Your task to perform on an android device: show emergency info Image 0: 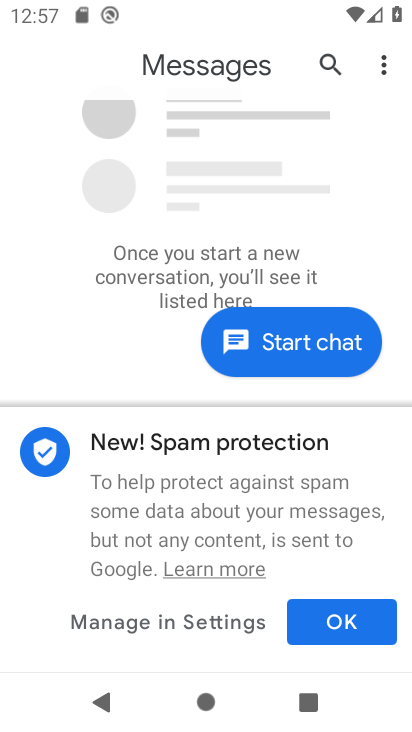
Step 0: press home button
Your task to perform on an android device: show emergency info Image 1: 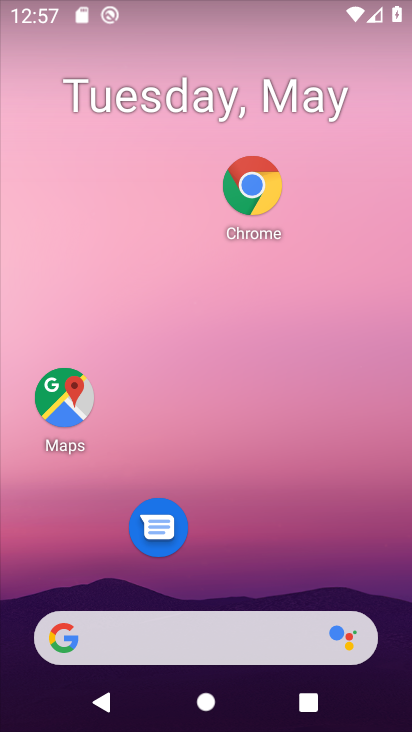
Step 1: drag from (288, 534) to (122, 10)
Your task to perform on an android device: show emergency info Image 2: 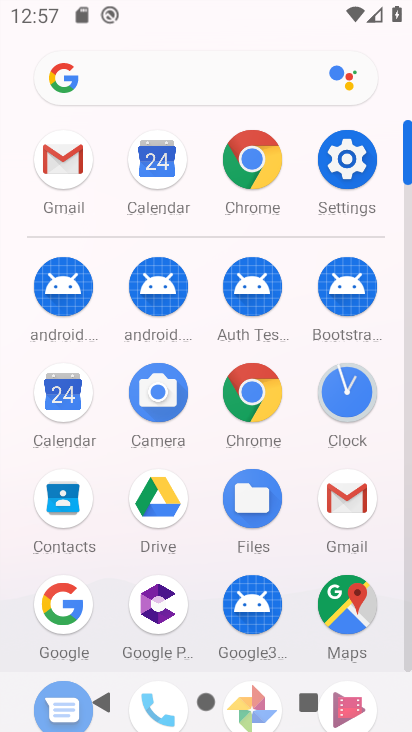
Step 2: click (353, 153)
Your task to perform on an android device: show emergency info Image 3: 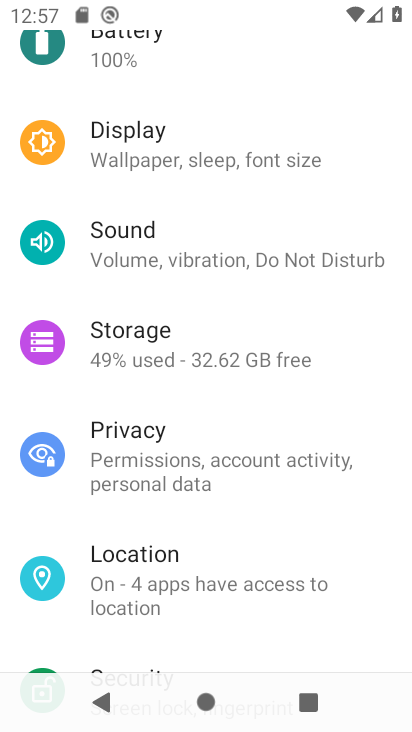
Step 3: drag from (201, 192) to (232, 534)
Your task to perform on an android device: show emergency info Image 4: 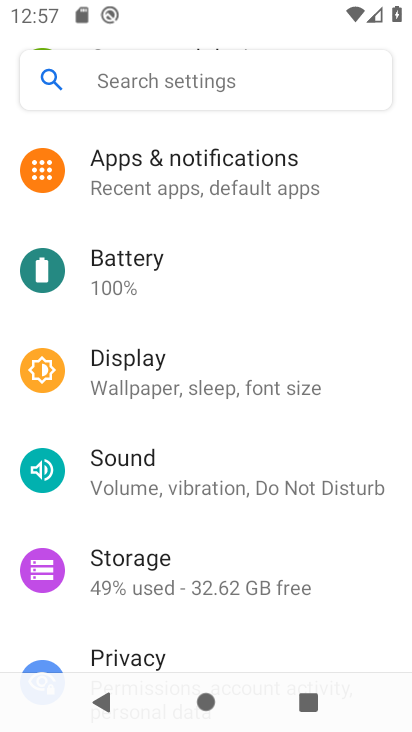
Step 4: drag from (215, 519) to (215, 122)
Your task to perform on an android device: show emergency info Image 5: 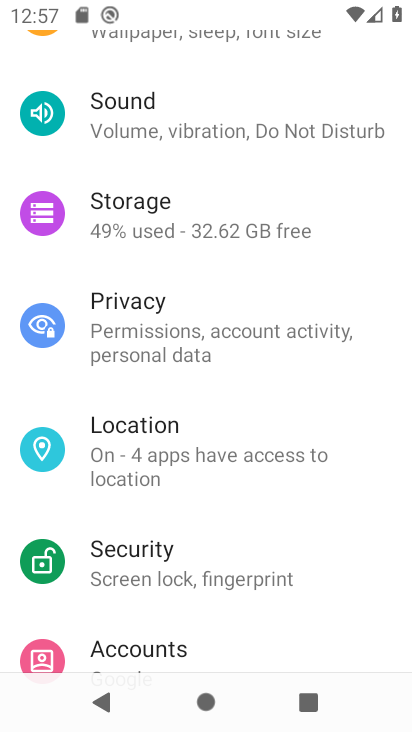
Step 5: drag from (214, 498) to (204, 87)
Your task to perform on an android device: show emergency info Image 6: 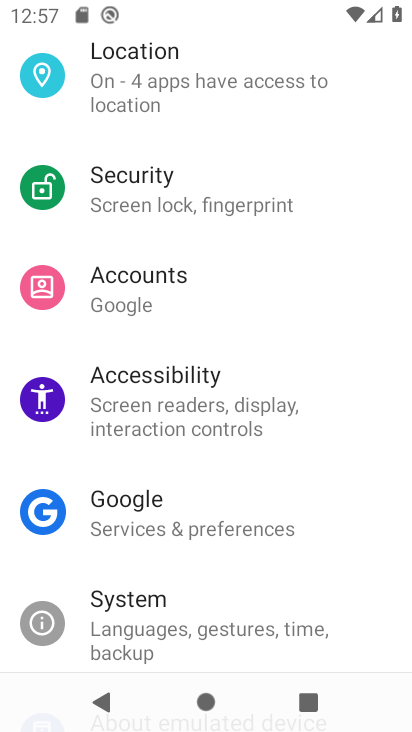
Step 6: drag from (193, 482) to (128, 13)
Your task to perform on an android device: show emergency info Image 7: 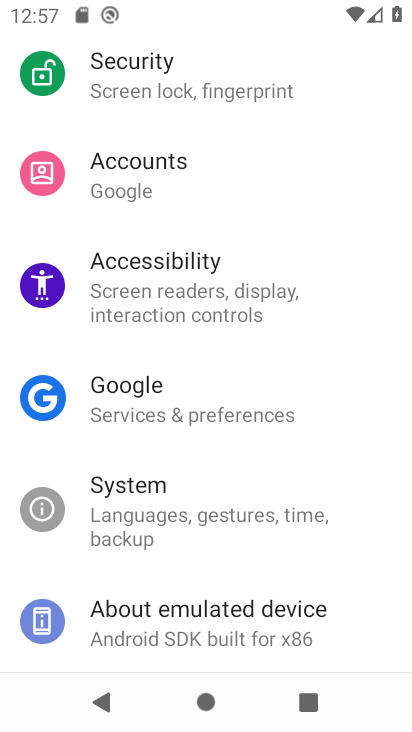
Step 7: click (154, 593)
Your task to perform on an android device: show emergency info Image 8: 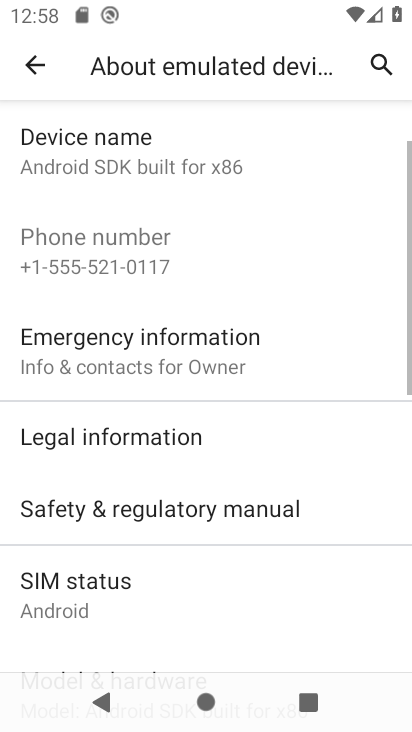
Step 8: click (203, 340)
Your task to perform on an android device: show emergency info Image 9: 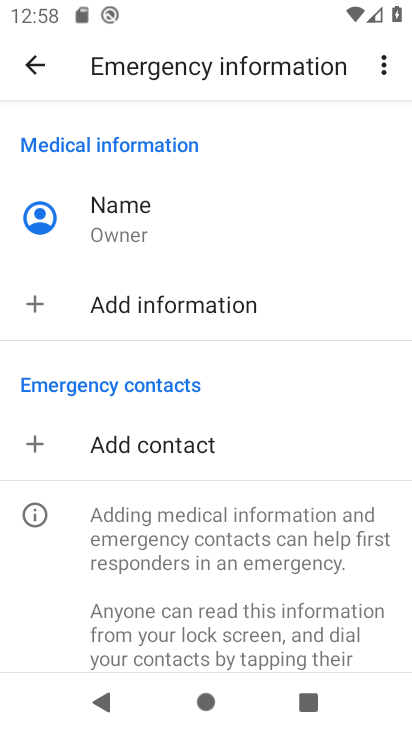
Step 9: task complete